Your task to perform on an android device: check data usage Image 0: 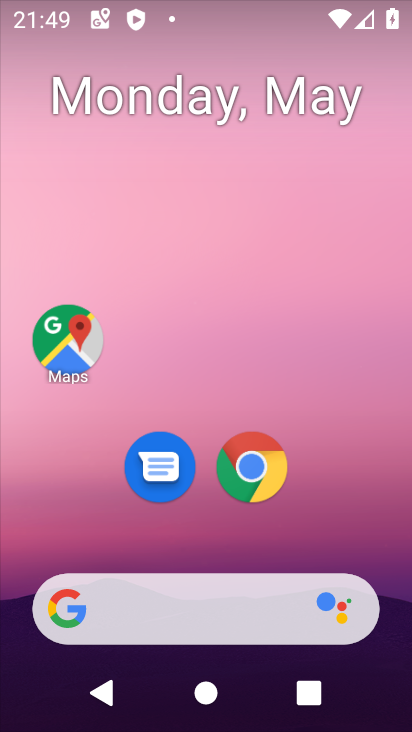
Step 0: drag from (229, 654) to (225, 10)
Your task to perform on an android device: check data usage Image 1: 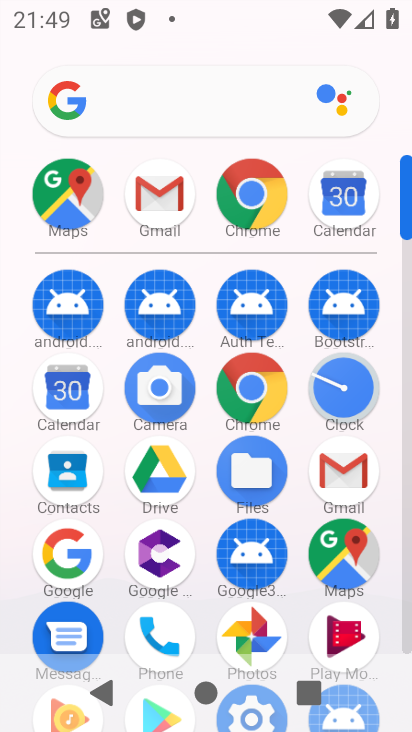
Step 1: drag from (199, 501) to (178, 302)
Your task to perform on an android device: check data usage Image 2: 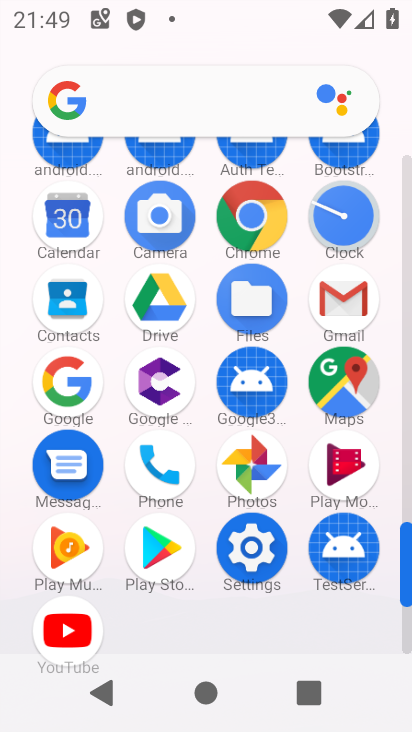
Step 2: click (243, 533)
Your task to perform on an android device: check data usage Image 3: 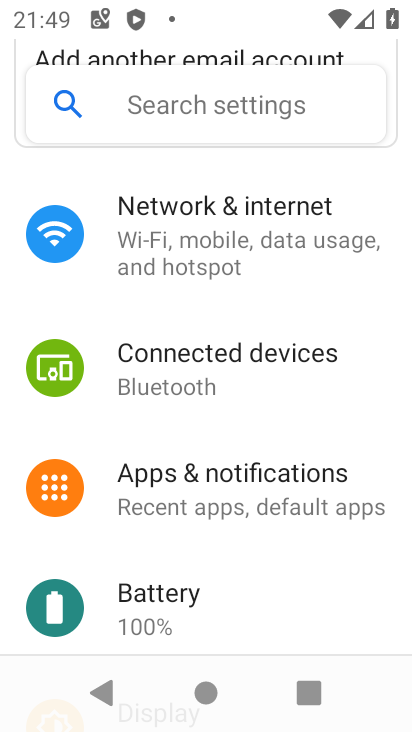
Step 3: click (186, 104)
Your task to perform on an android device: check data usage Image 4: 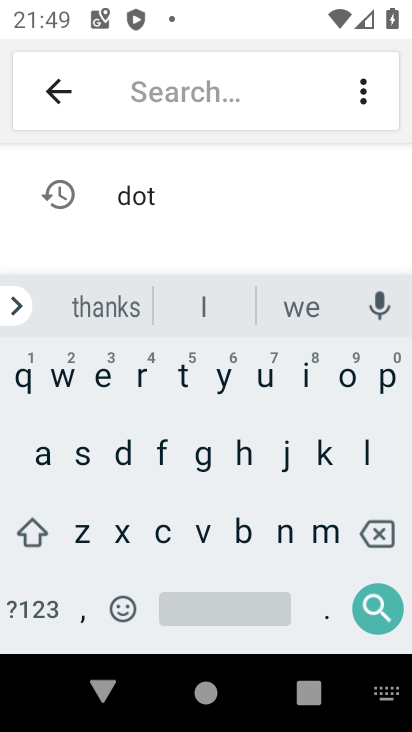
Step 4: click (116, 457)
Your task to perform on an android device: check data usage Image 5: 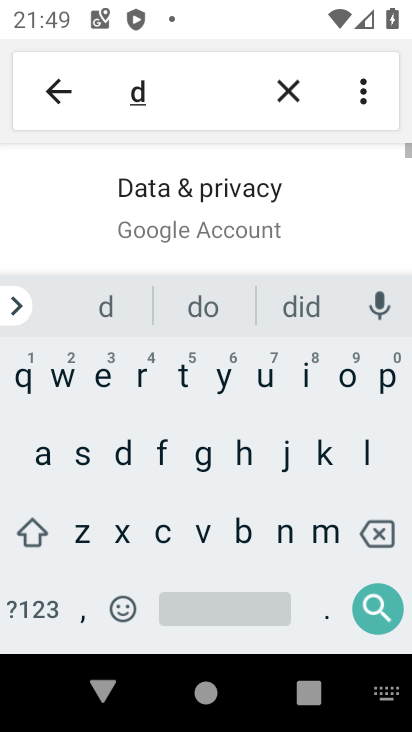
Step 5: click (37, 446)
Your task to perform on an android device: check data usage Image 6: 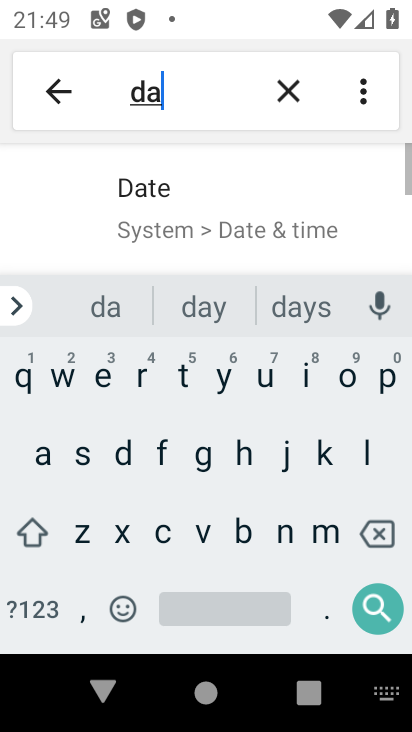
Step 6: click (186, 378)
Your task to perform on an android device: check data usage Image 7: 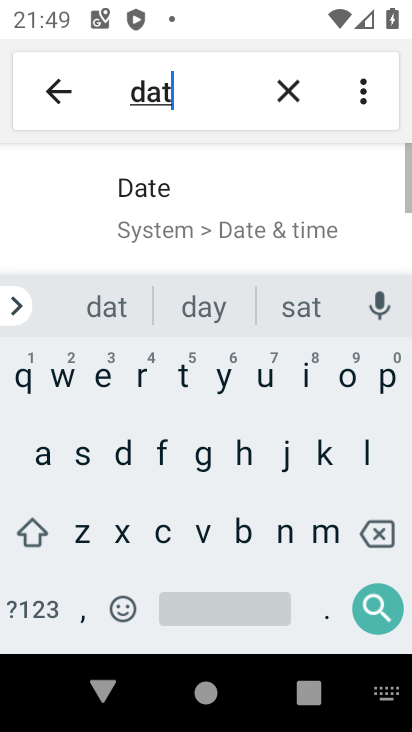
Step 7: click (40, 455)
Your task to perform on an android device: check data usage Image 8: 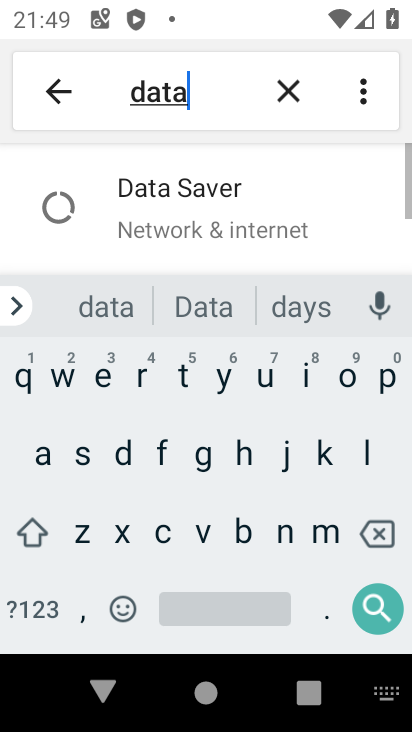
Step 8: click (210, 603)
Your task to perform on an android device: check data usage Image 9: 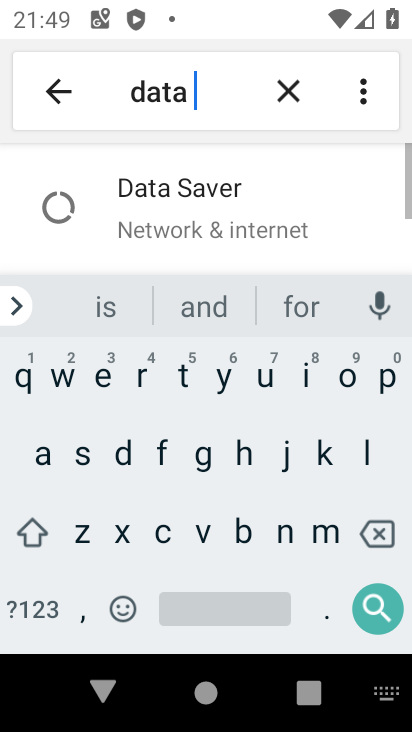
Step 9: click (265, 394)
Your task to perform on an android device: check data usage Image 10: 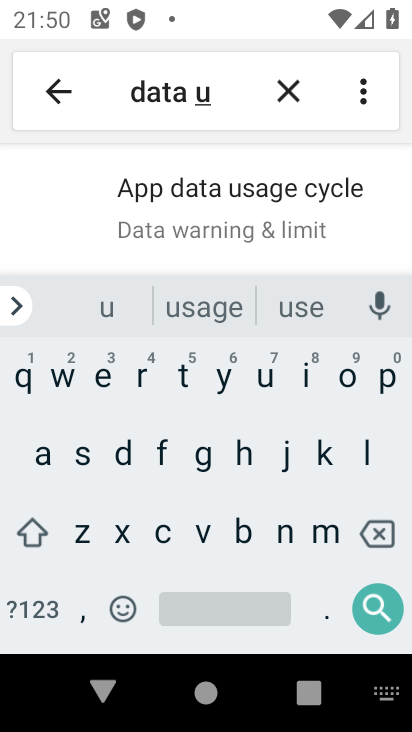
Step 10: press back button
Your task to perform on an android device: check data usage Image 11: 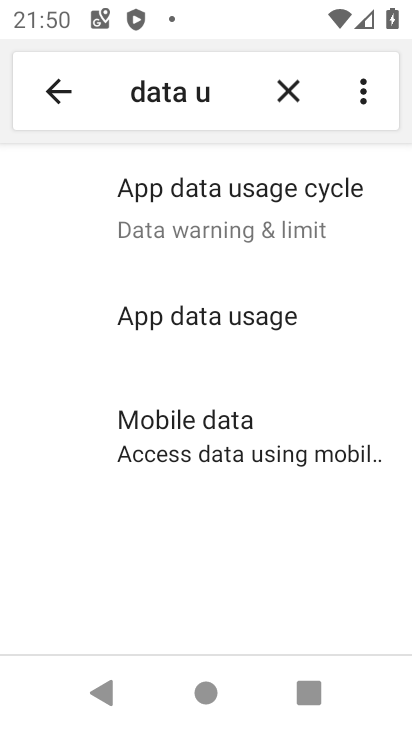
Step 11: click (179, 306)
Your task to perform on an android device: check data usage Image 12: 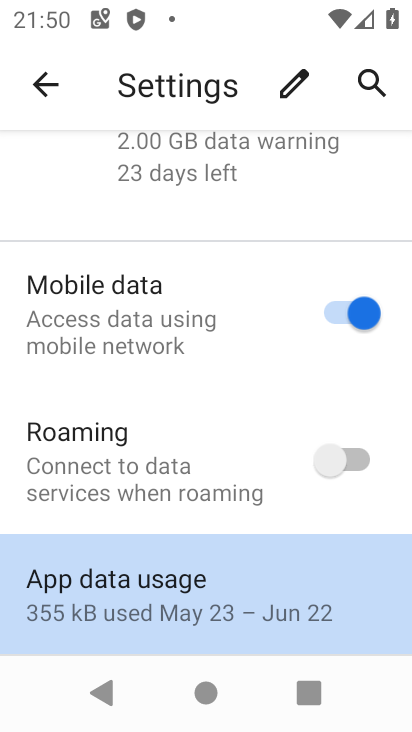
Step 12: click (105, 600)
Your task to perform on an android device: check data usage Image 13: 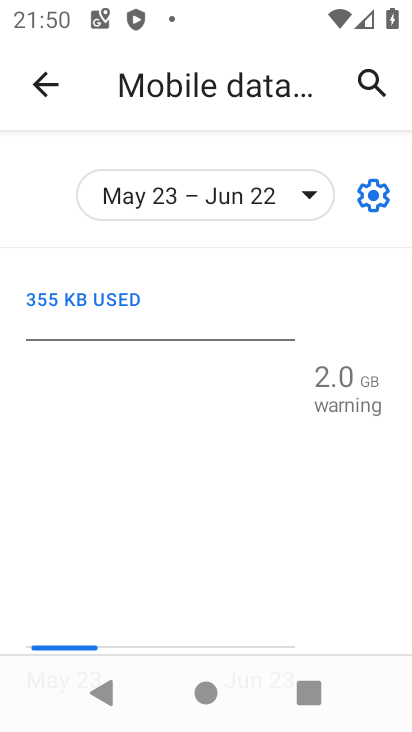
Step 13: task complete